Your task to perform on an android device: check storage Image 0: 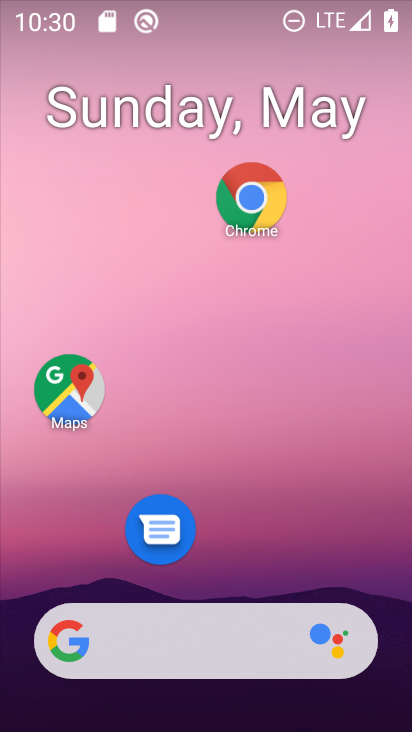
Step 0: drag from (261, 575) to (232, 10)
Your task to perform on an android device: check storage Image 1: 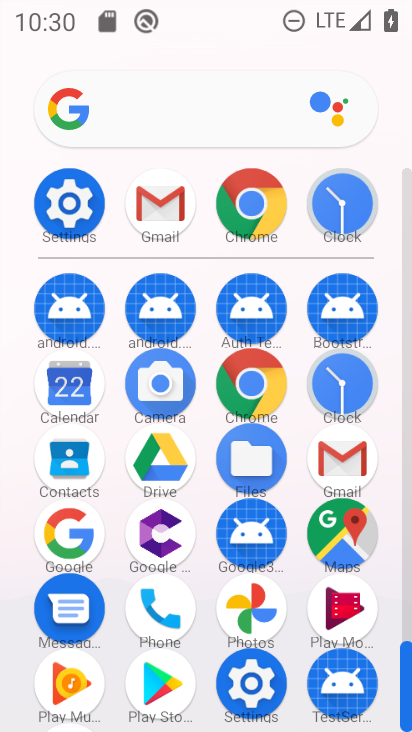
Step 1: click (68, 211)
Your task to perform on an android device: check storage Image 2: 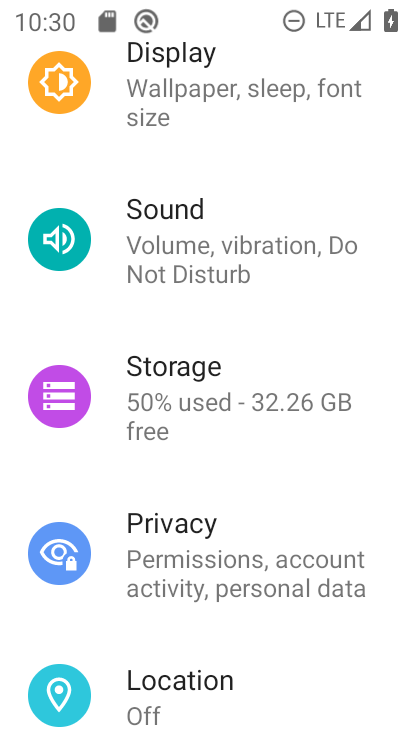
Step 2: drag from (204, 641) to (249, 421)
Your task to perform on an android device: check storage Image 3: 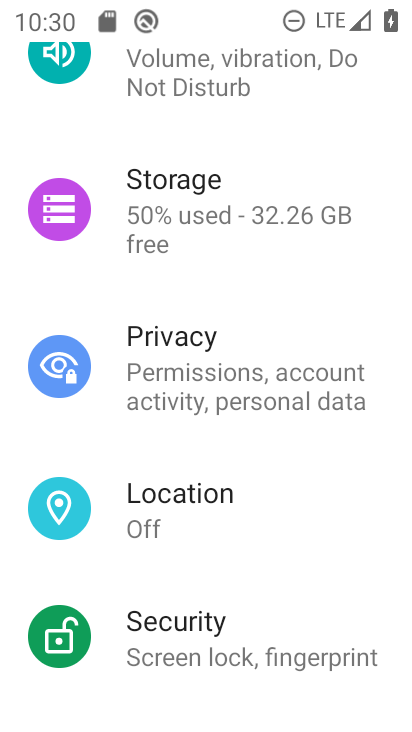
Step 3: drag from (227, 643) to (295, 392)
Your task to perform on an android device: check storage Image 4: 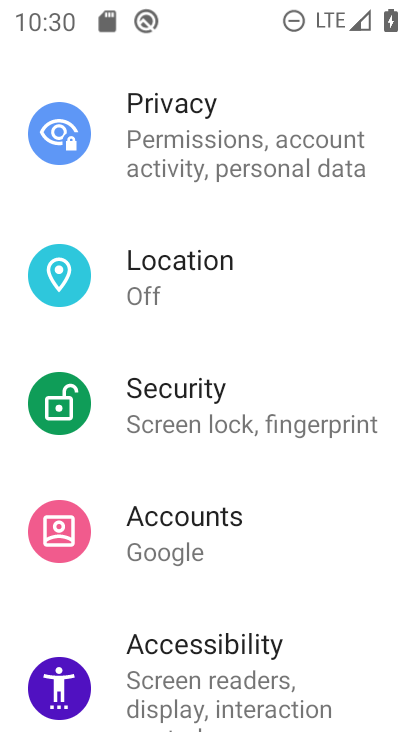
Step 4: drag from (284, 365) to (295, 569)
Your task to perform on an android device: check storage Image 5: 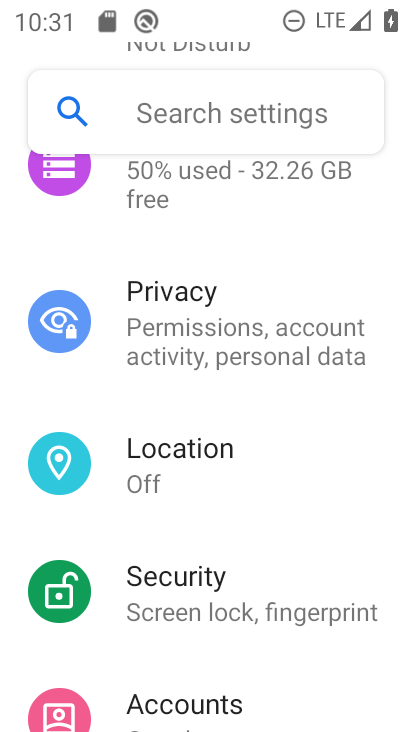
Step 5: click (216, 192)
Your task to perform on an android device: check storage Image 6: 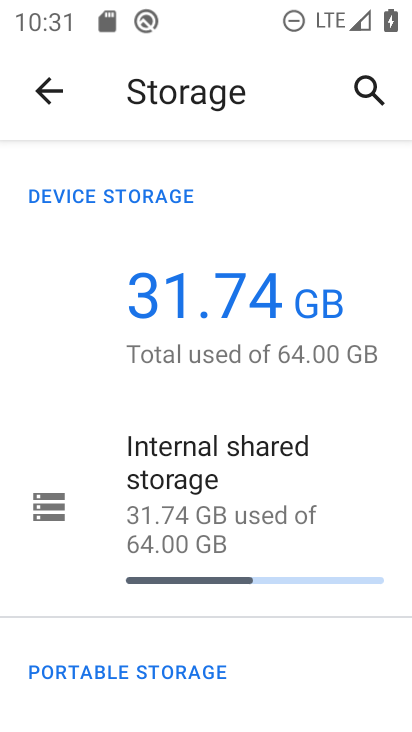
Step 6: task complete